Your task to perform on an android device: allow notifications from all sites in the chrome app Image 0: 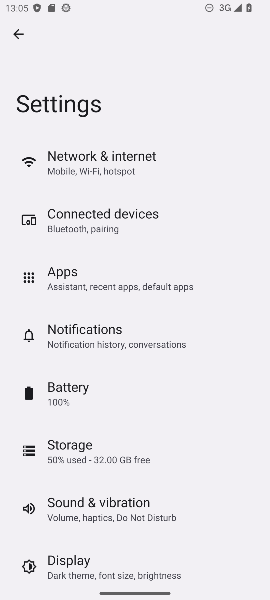
Step 0: press home button
Your task to perform on an android device: allow notifications from all sites in the chrome app Image 1: 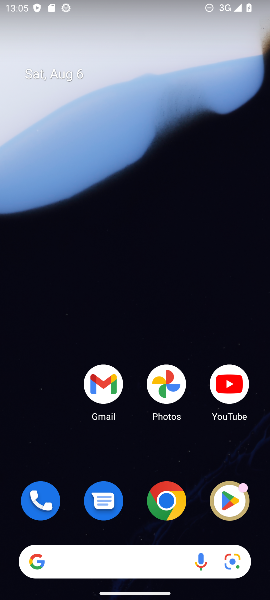
Step 1: click (156, 495)
Your task to perform on an android device: allow notifications from all sites in the chrome app Image 2: 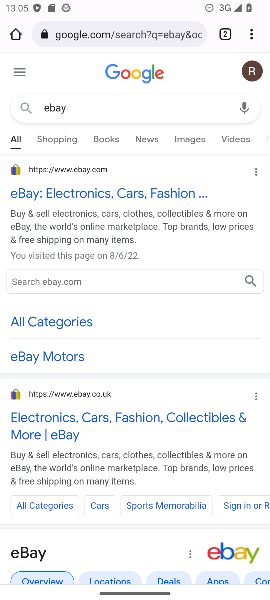
Step 2: click (253, 32)
Your task to perform on an android device: allow notifications from all sites in the chrome app Image 3: 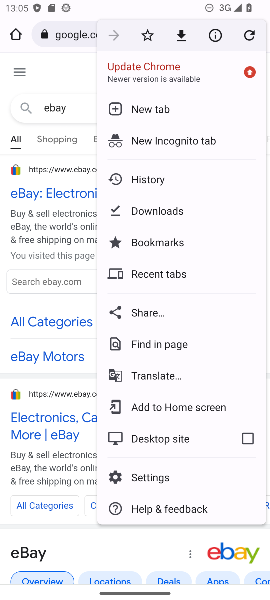
Step 3: click (146, 478)
Your task to perform on an android device: allow notifications from all sites in the chrome app Image 4: 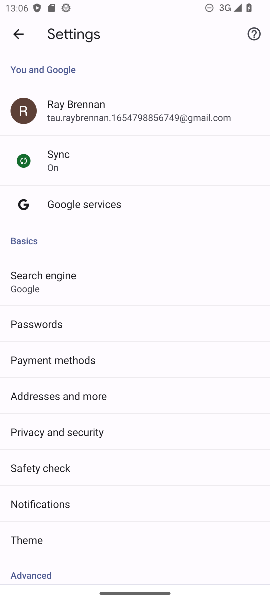
Step 4: click (51, 501)
Your task to perform on an android device: allow notifications from all sites in the chrome app Image 5: 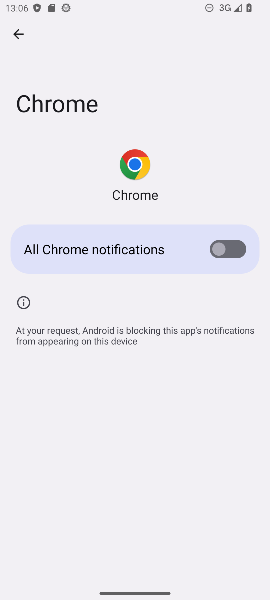
Step 5: click (228, 256)
Your task to perform on an android device: allow notifications from all sites in the chrome app Image 6: 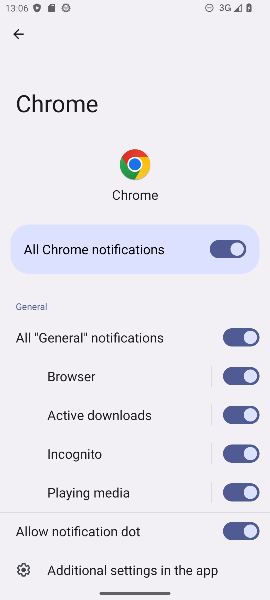
Step 6: task complete